Your task to perform on an android device: Open Amazon Image 0: 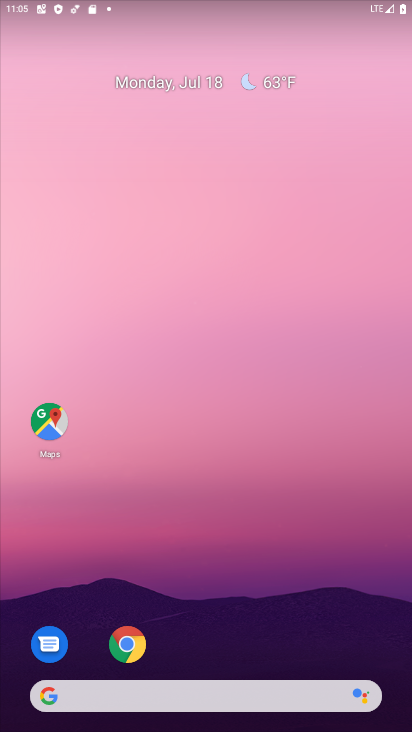
Step 0: click (133, 641)
Your task to perform on an android device: Open Amazon Image 1: 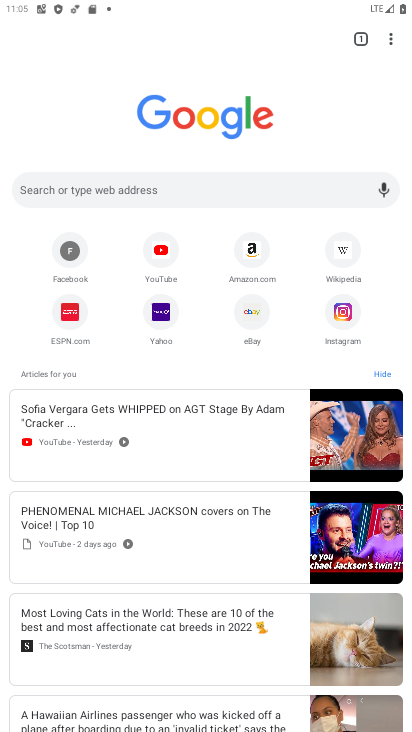
Step 1: click (258, 241)
Your task to perform on an android device: Open Amazon Image 2: 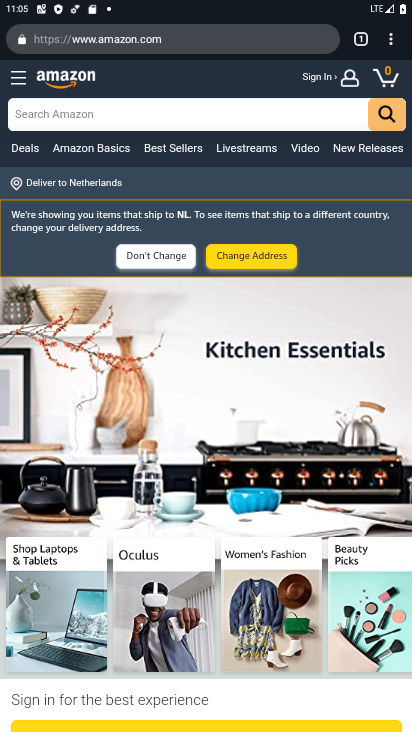
Step 2: task complete